Your task to perform on an android device: check google app version Image 0: 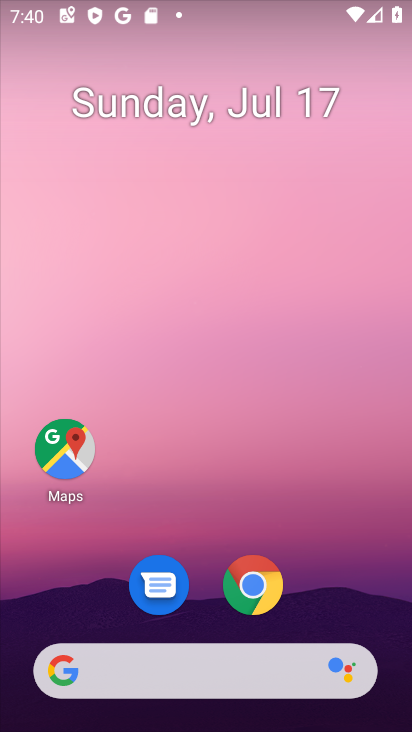
Step 0: click (225, 675)
Your task to perform on an android device: check google app version Image 1: 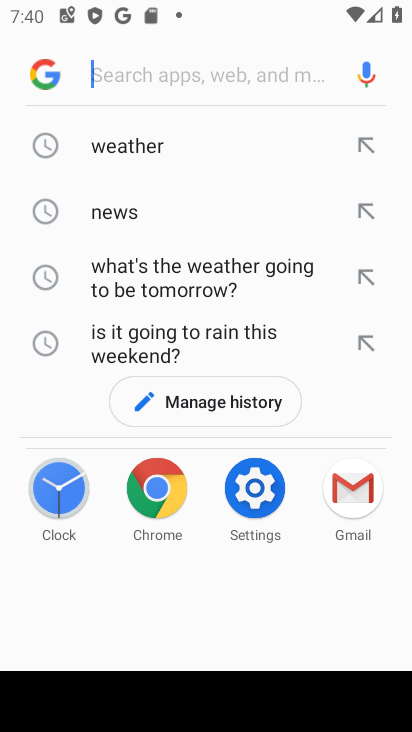
Step 1: click (42, 76)
Your task to perform on an android device: check google app version Image 2: 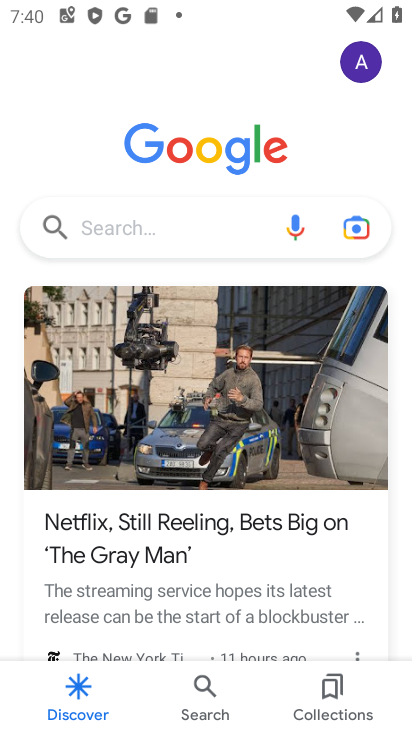
Step 2: click (368, 68)
Your task to perform on an android device: check google app version Image 3: 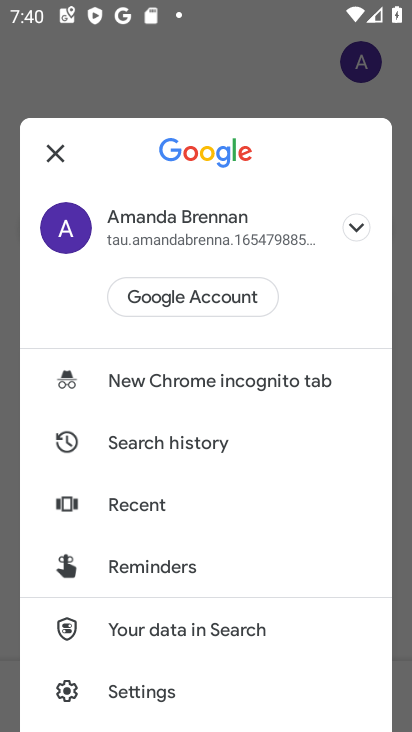
Step 3: click (157, 694)
Your task to perform on an android device: check google app version Image 4: 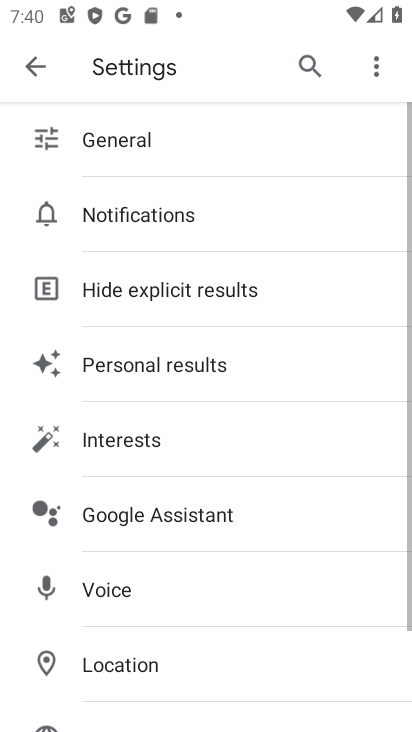
Step 4: drag from (243, 575) to (229, 298)
Your task to perform on an android device: check google app version Image 5: 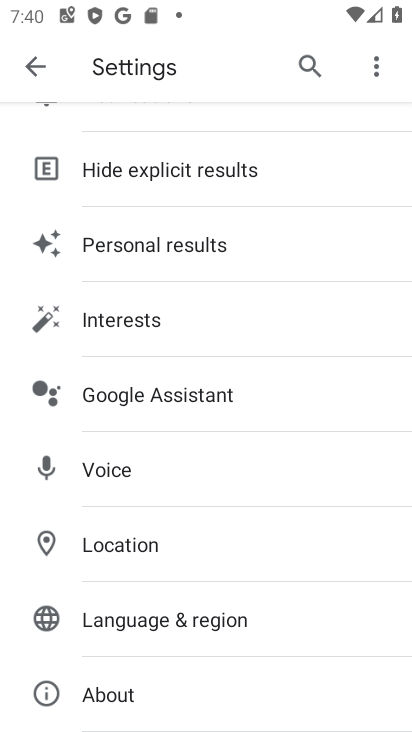
Step 5: click (107, 691)
Your task to perform on an android device: check google app version Image 6: 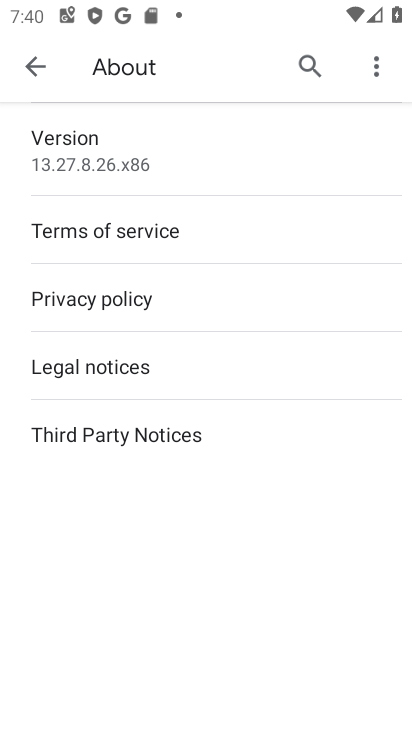
Step 6: task complete